Your task to perform on an android device: Search for vegetarian restaurants on Maps Image 0: 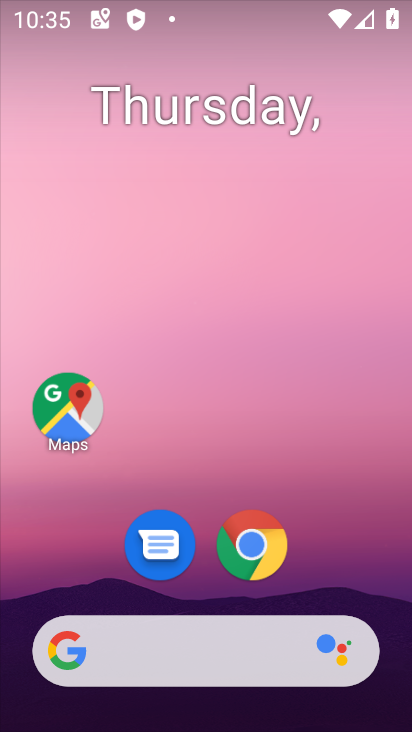
Step 0: click (67, 409)
Your task to perform on an android device: Search for vegetarian restaurants on Maps Image 1: 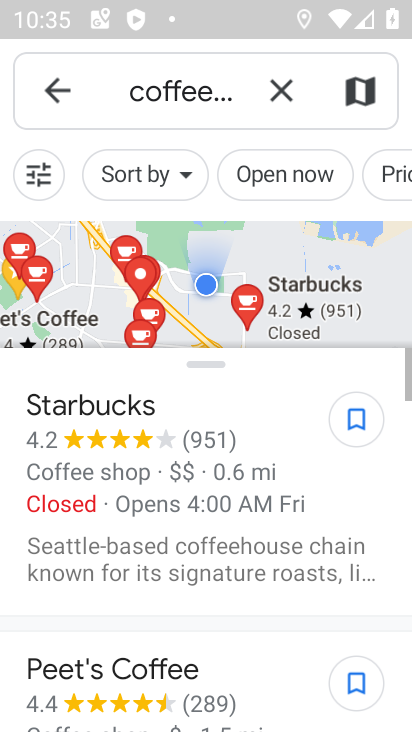
Step 1: click (274, 102)
Your task to perform on an android device: Search for vegetarian restaurants on Maps Image 2: 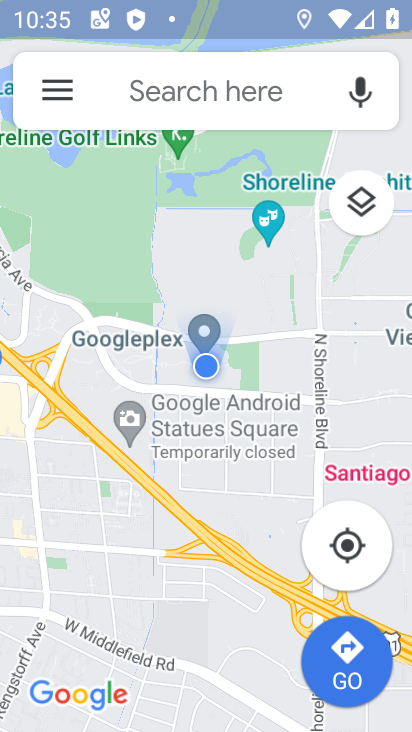
Step 2: click (129, 88)
Your task to perform on an android device: Search for vegetarian restaurants on Maps Image 3: 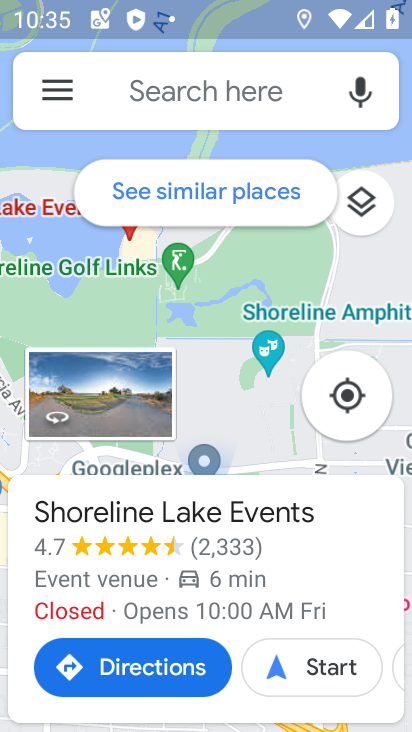
Step 3: click (179, 79)
Your task to perform on an android device: Search for vegetarian restaurants on Maps Image 4: 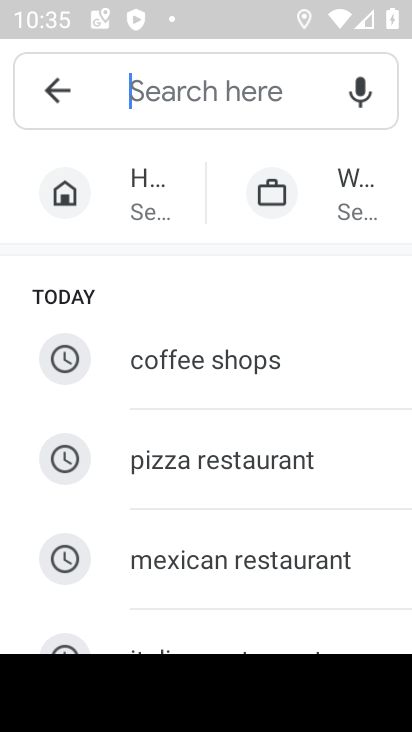
Step 4: type "vegetarian"
Your task to perform on an android device: Search for vegetarian restaurants on Maps Image 5: 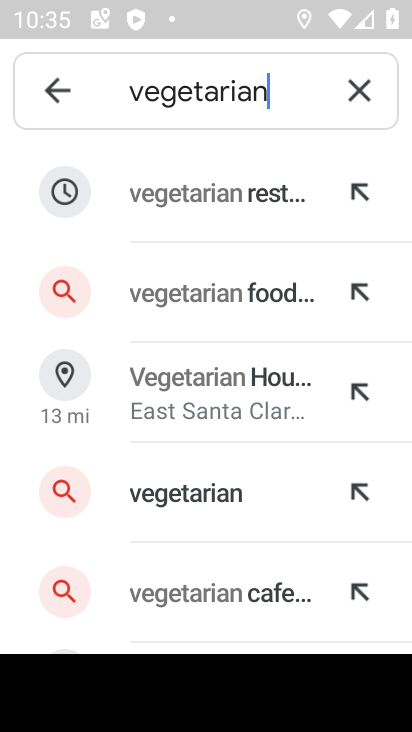
Step 5: click (241, 196)
Your task to perform on an android device: Search for vegetarian restaurants on Maps Image 6: 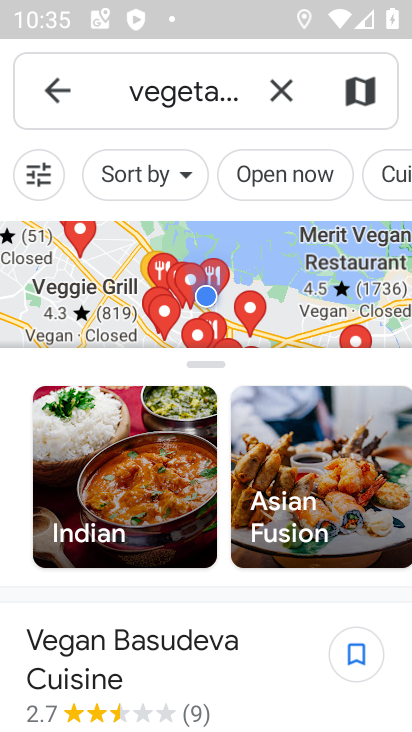
Step 6: task complete